Your task to perform on an android device: check out phone information Image 0: 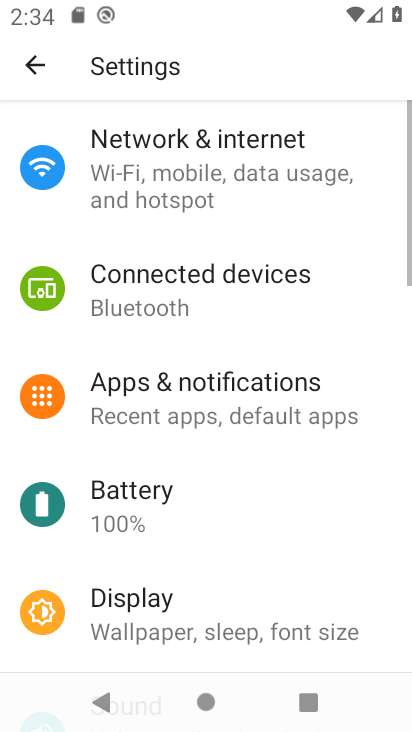
Step 0: press home button
Your task to perform on an android device: check out phone information Image 1: 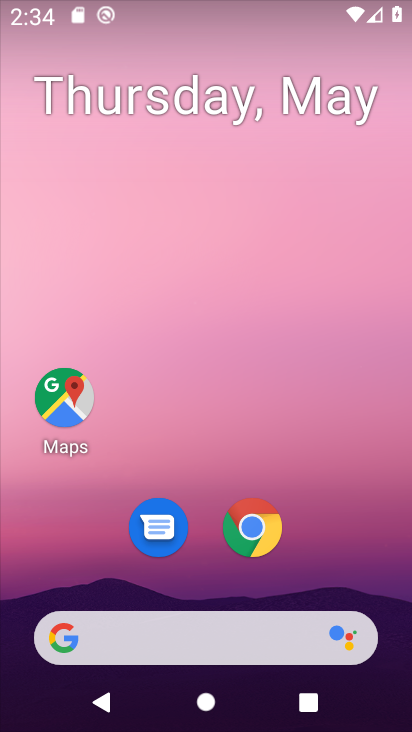
Step 1: drag from (387, 430) to (403, 255)
Your task to perform on an android device: check out phone information Image 2: 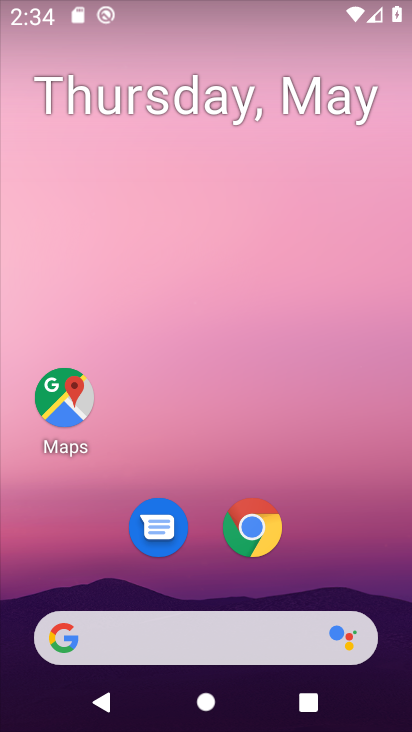
Step 2: drag from (351, 581) to (337, 83)
Your task to perform on an android device: check out phone information Image 3: 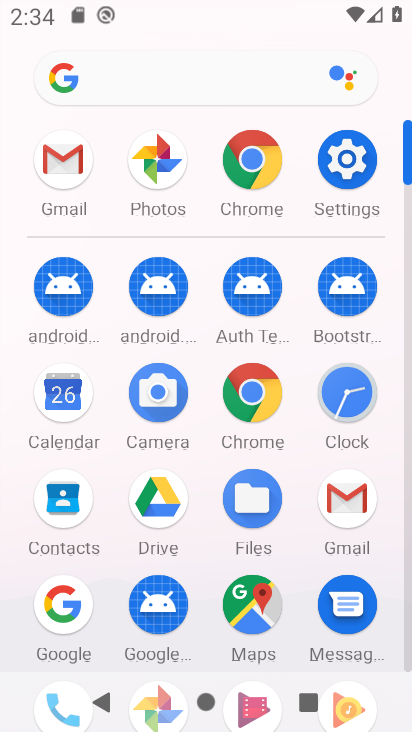
Step 3: click (407, 481)
Your task to perform on an android device: check out phone information Image 4: 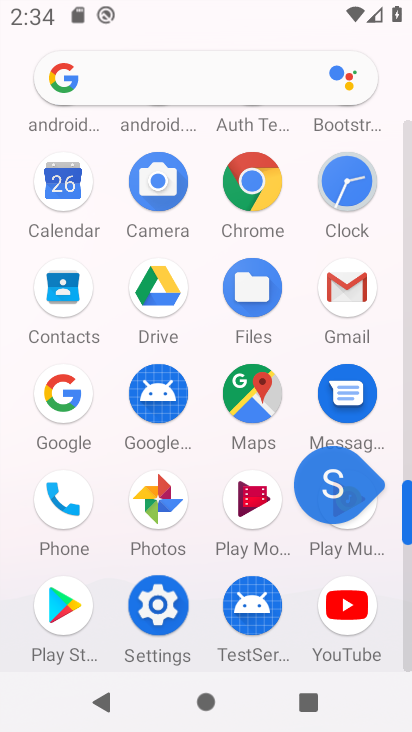
Step 4: click (407, 481)
Your task to perform on an android device: check out phone information Image 5: 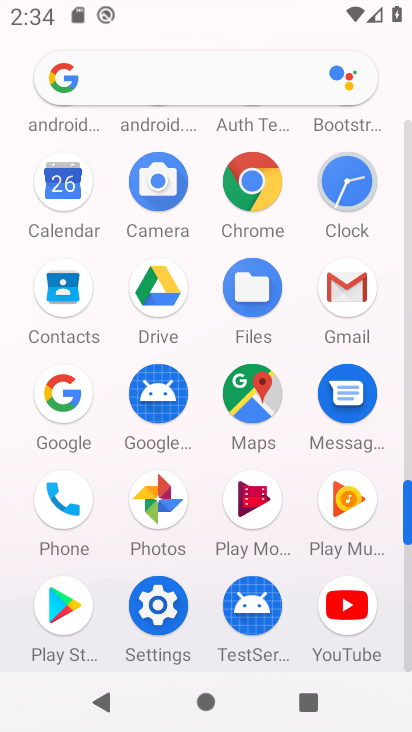
Step 5: click (52, 494)
Your task to perform on an android device: check out phone information Image 6: 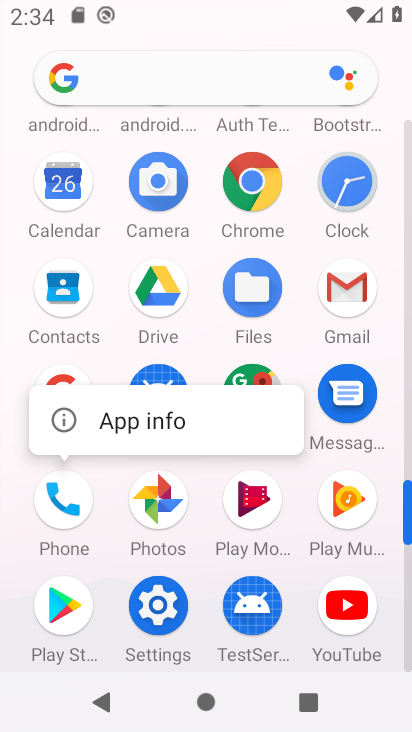
Step 6: click (95, 427)
Your task to perform on an android device: check out phone information Image 7: 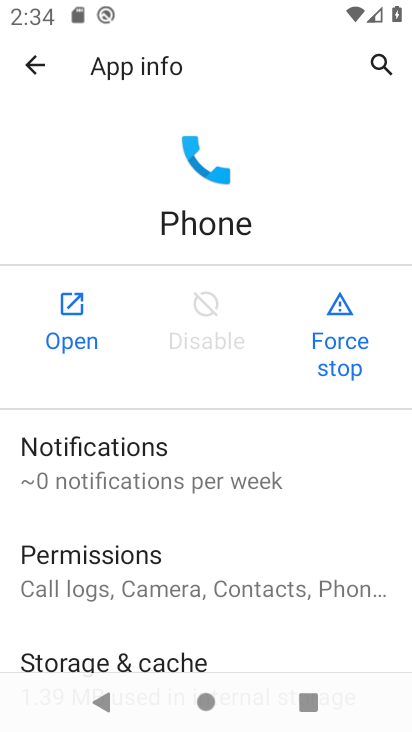
Step 7: task complete